Your task to perform on an android device: move an email to a new category in the gmail app Image 0: 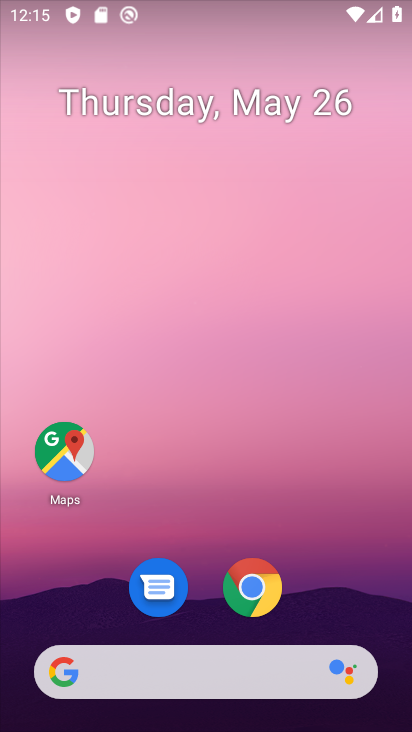
Step 0: drag from (361, 609) to (387, 267)
Your task to perform on an android device: move an email to a new category in the gmail app Image 1: 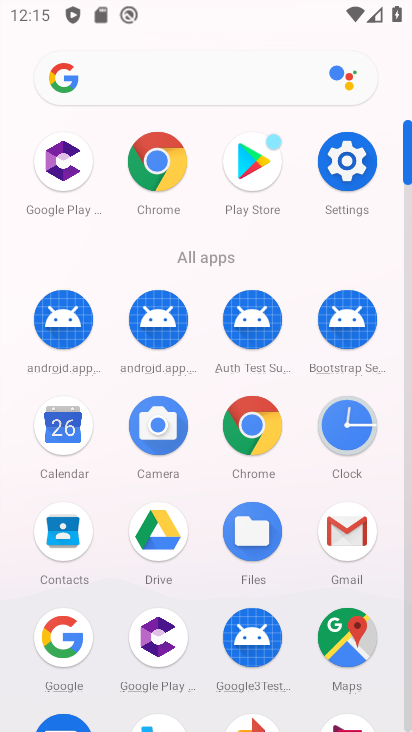
Step 1: click (346, 539)
Your task to perform on an android device: move an email to a new category in the gmail app Image 2: 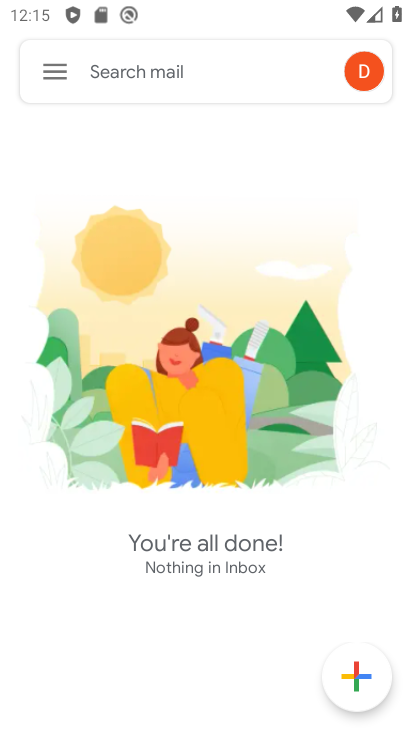
Step 2: click (54, 65)
Your task to perform on an android device: move an email to a new category in the gmail app Image 3: 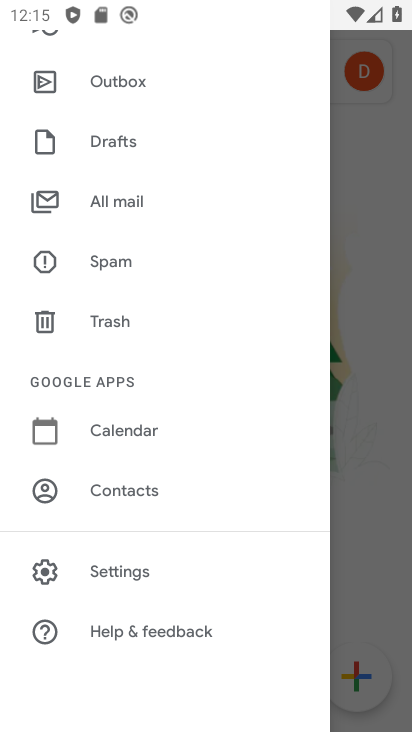
Step 3: drag from (238, 376) to (258, 448)
Your task to perform on an android device: move an email to a new category in the gmail app Image 4: 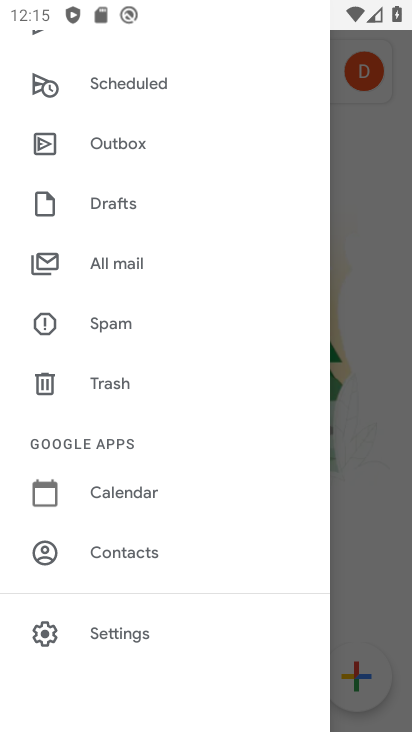
Step 4: drag from (264, 305) to (256, 384)
Your task to perform on an android device: move an email to a new category in the gmail app Image 5: 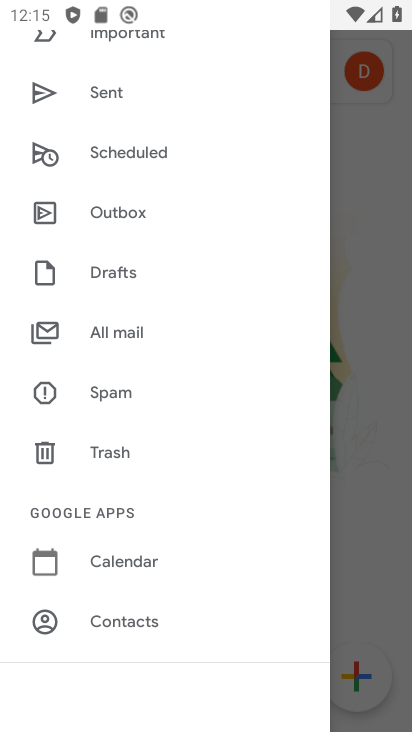
Step 5: drag from (245, 242) to (247, 343)
Your task to perform on an android device: move an email to a new category in the gmail app Image 6: 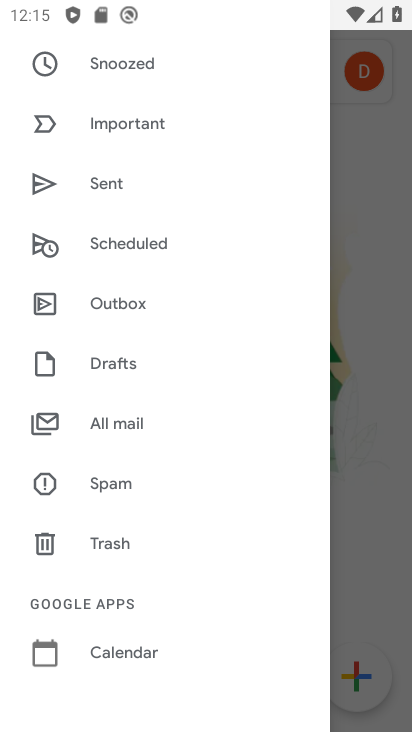
Step 6: drag from (245, 222) to (230, 318)
Your task to perform on an android device: move an email to a new category in the gmail app Image 7: 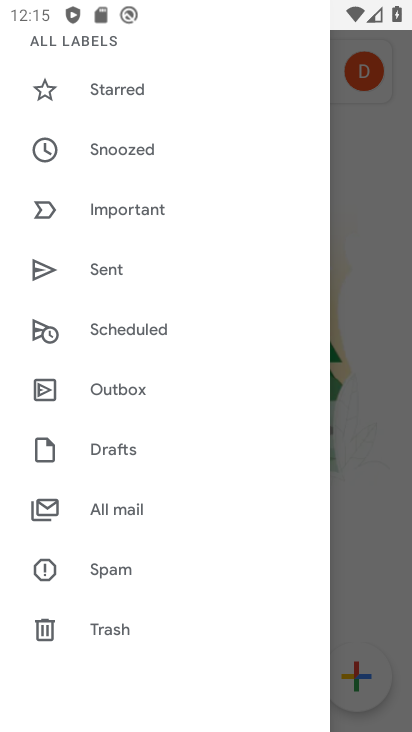
Step 7: drag from (243, 238) to (253, 340)
Your task to perform on an android device: move an email to a new category in the gmail app Image 8: 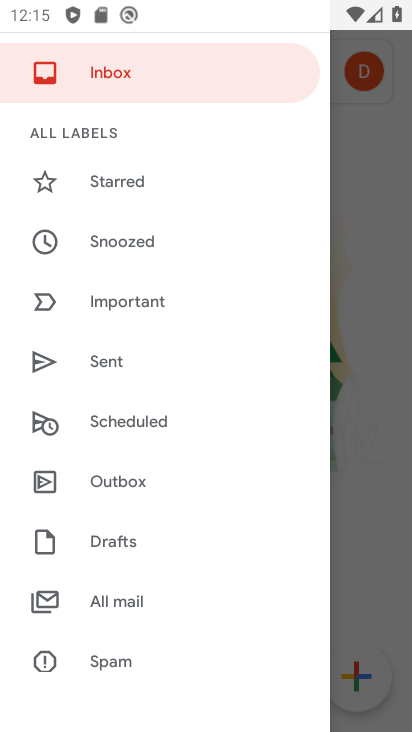
Step 8: drag from (258, 206) to (255, 310)
Your task to perform on an android device: move an email to a new category in the gmail app Image 9: 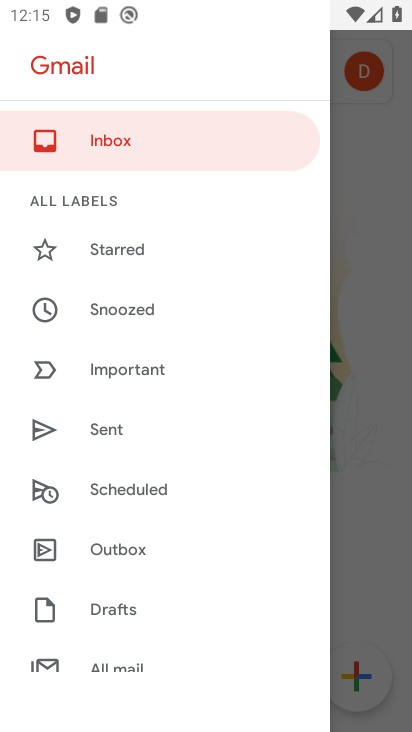
Step 9: click (210, 148)
Your task to perform on an android device: move an email to a new category in the gmail app Image 10: 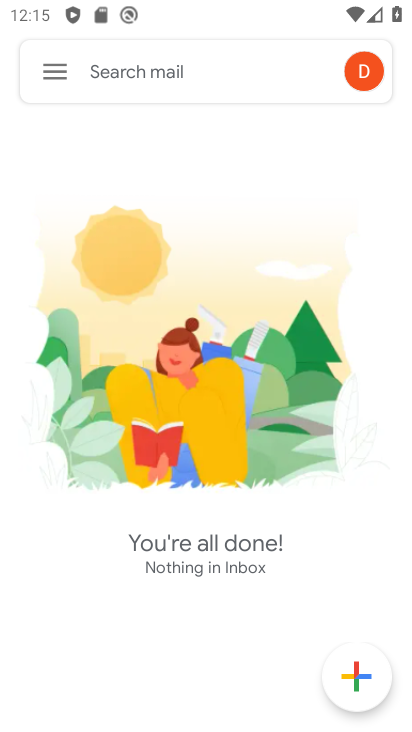
Step 10: task complete